Your task to perform on an android device: Go to Google maps Image 0: 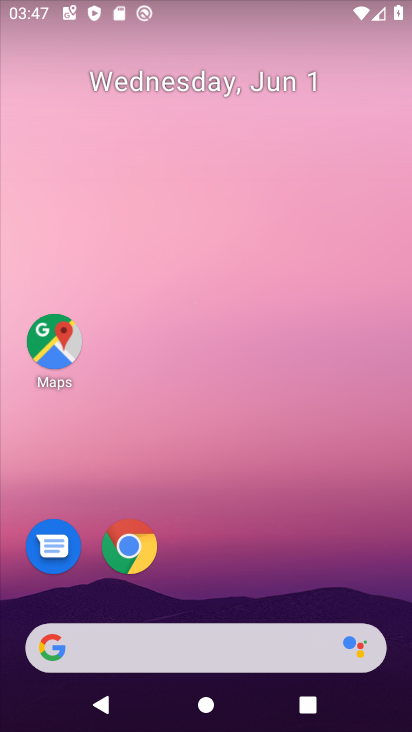
Step 0: click (55, 342)
Your task to perform on an android device: Go to Google maps Image 1: 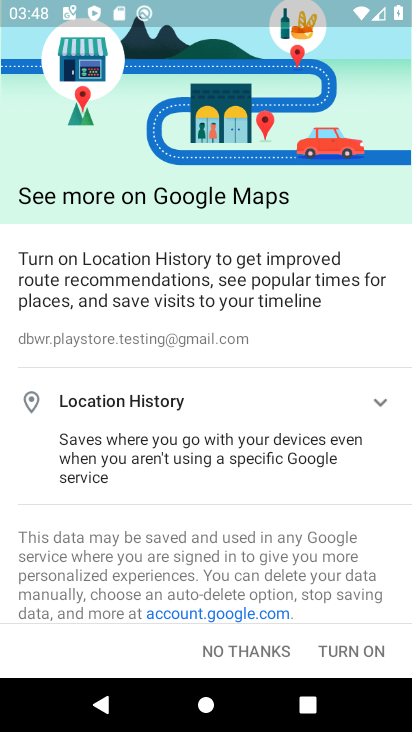
Step 1: click (269, 645)
Your task to perform on an android device: Go to Google maps Image 2: 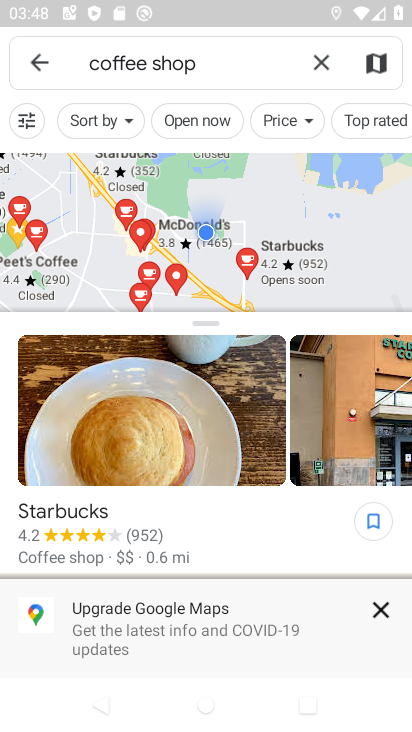
Step 2: task complete